Your task to perform on an android device: make emails show in primary in the gmail app Image 0: 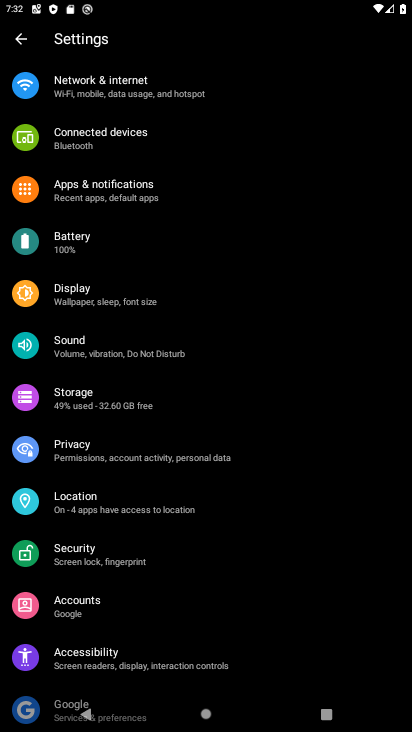
Step 0: press home button
Your task to perform on an android device: make emails show in primary in the gmail app Image 1: 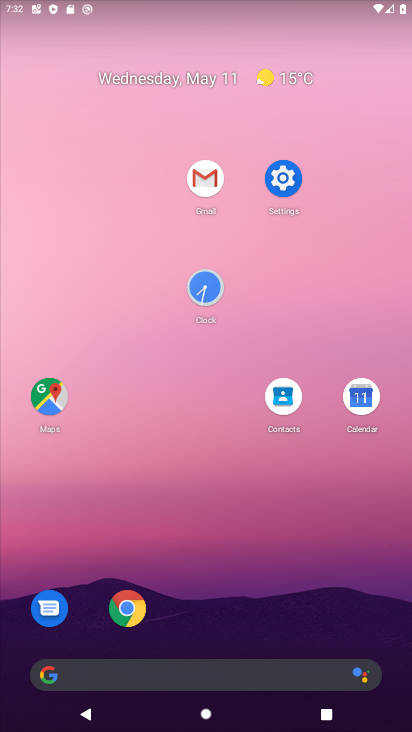
Step 1: drag from (241, 607) to (232, 5)
Your task to perform on an android device: make emails show in primary in the gmail app Image 2: 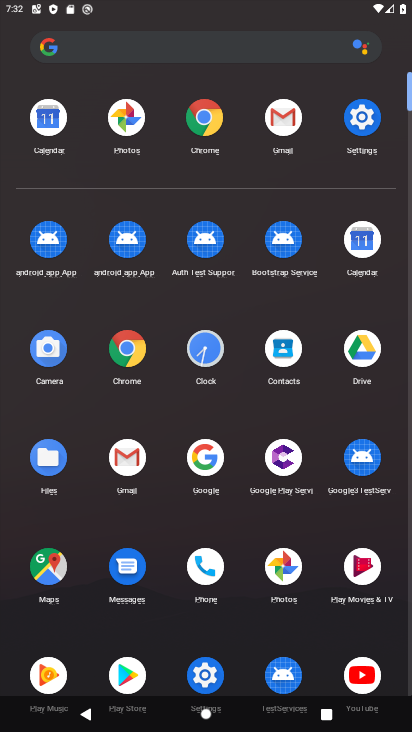
Step 2: click (266, 120)
Your task to perform on an android device: make emails show in primary in the gmail app Image 3: 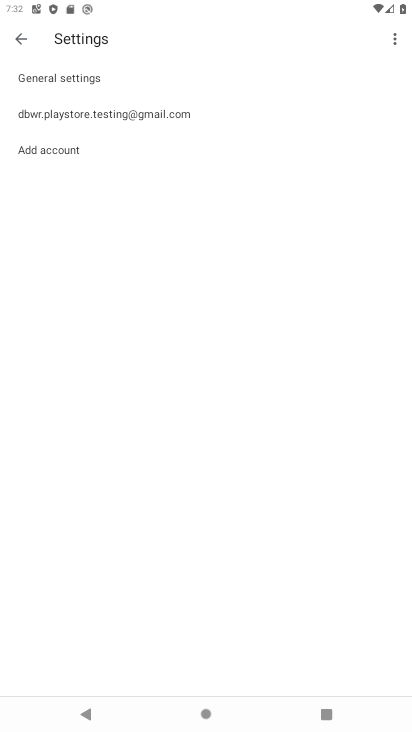
Step 3: click (109, 107)
Your task to perform on an android device: make emails show in primary in the gmail app Image 4: 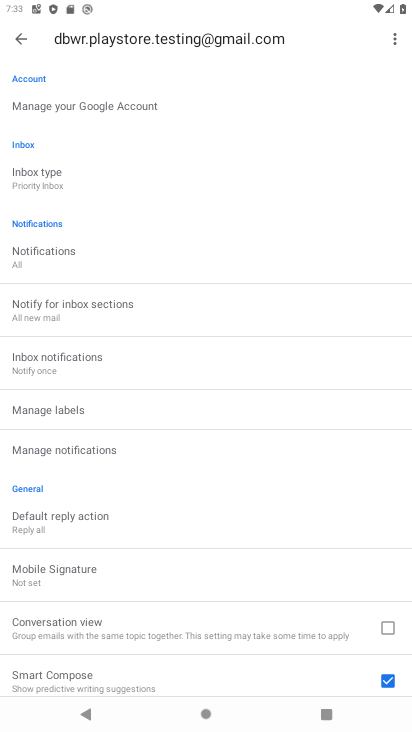
Step 4: drag from (121, 523) to (147, 222)
Your task to perform on an android device: make emails show in primary in the gmail app Image 5: 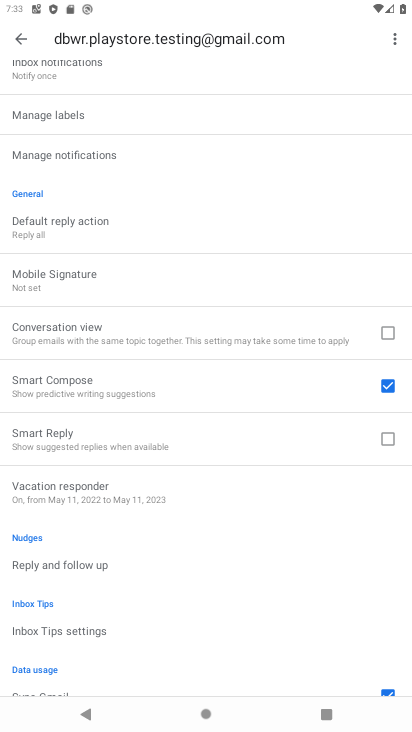
Step 5: drag from (158, 520) to (179, 268)
Your task to perform on an android device: make emails show in primary in the gmail app Image 6: 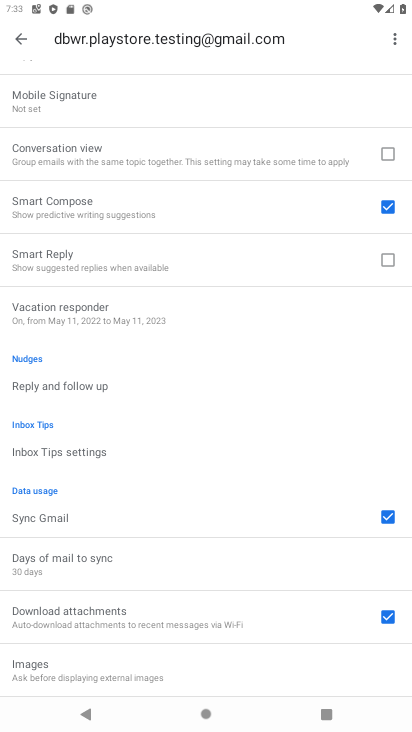
Step 6: click (21, 37)
Your task to perform on an android device: make emails show in primary in the gmail app Image 7: 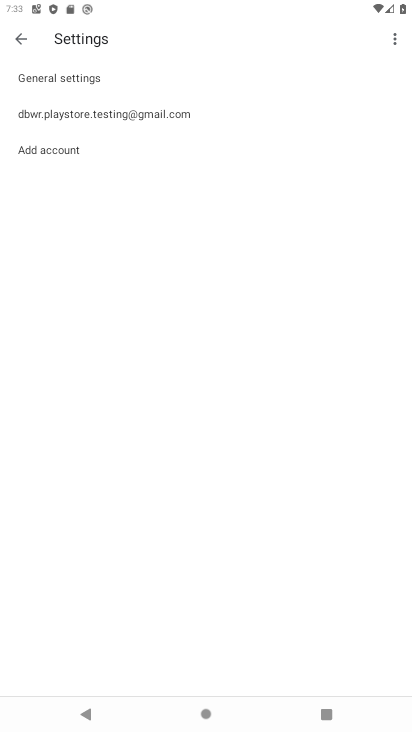
Step 7: click (69, 88)
Your task to perform on an android device: make emails show in primary in the gmail app Image 8: 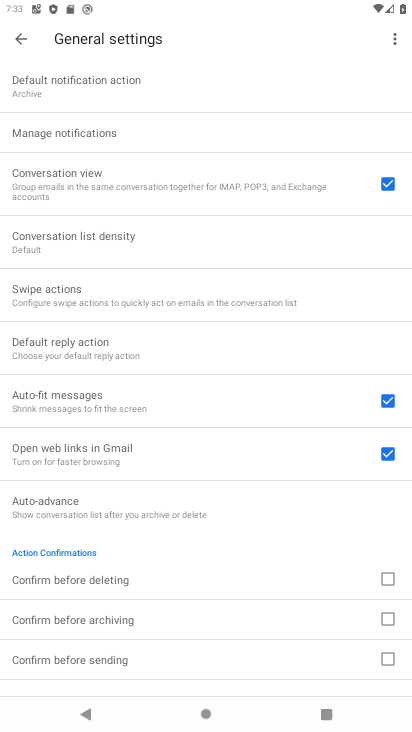
Step 8: task complete